Your task to perform on an android device: set the timer Image 0: 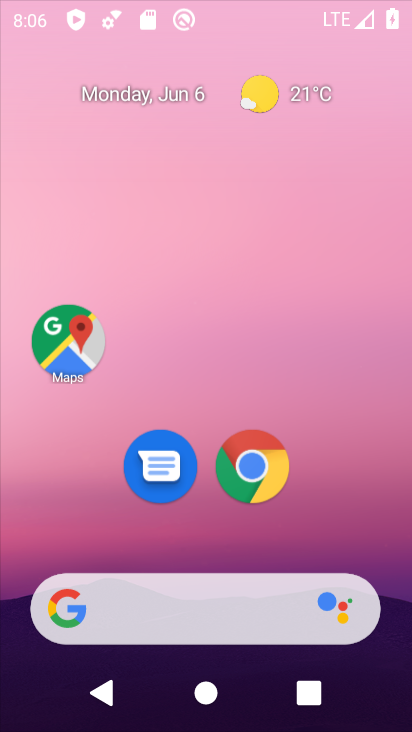
Step 0: click (389, 9)
Your task to perform on an android device: set the timer Image 1: 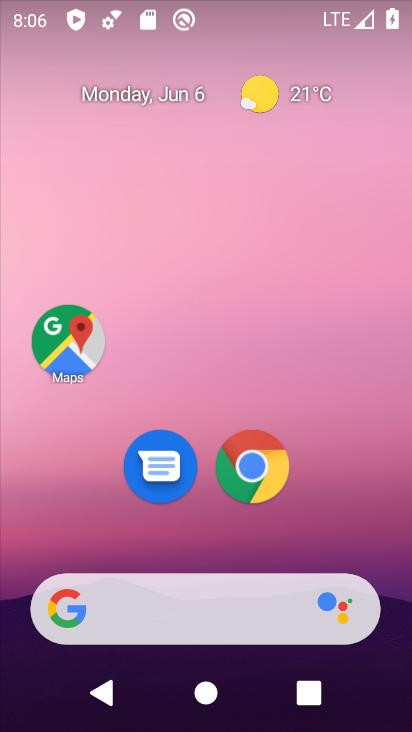
Step 1: drag from (174, 559) to (263, 30)
Your task to perform on an android device: set the timer Image 2: 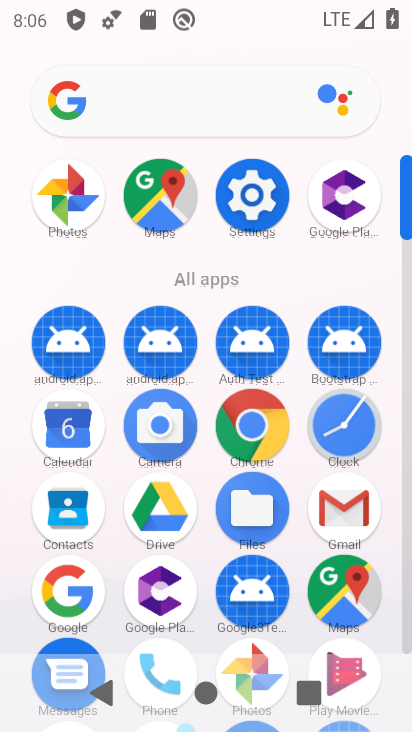
Step 2: click (358, 432)
Your task to perform on an android device: set the timer Image 3: 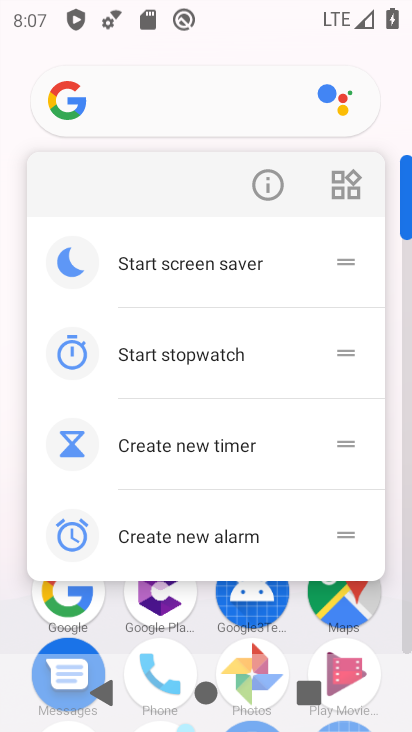
Step 3: click (281, 183)
Your task to perform on an android device: set the timer Image 4: 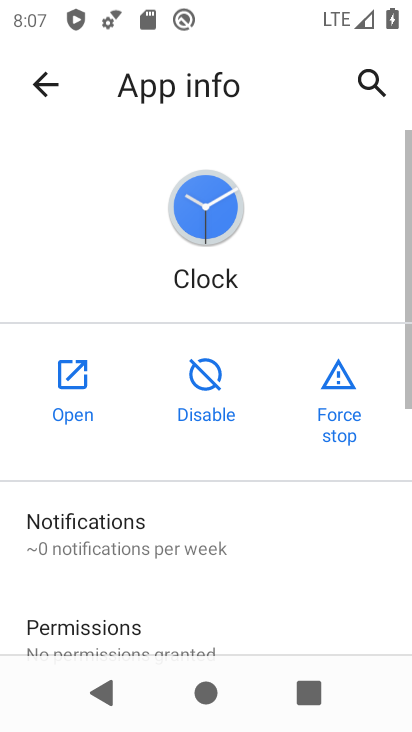
Step 4: click (51, 393)
Your task to perform on an android device: set the timer Image 5: 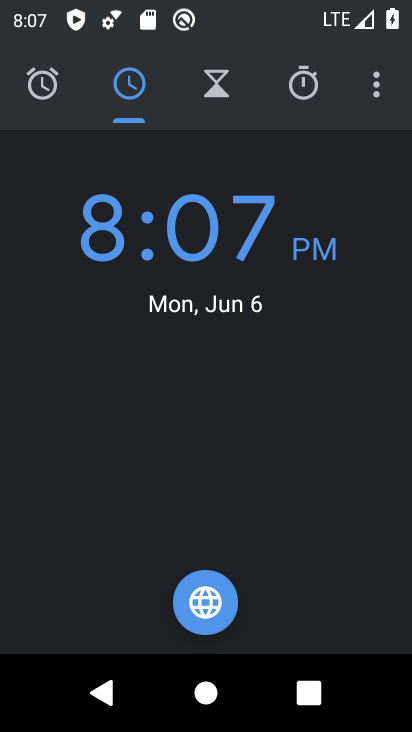
Step 5: click (221, 103)
Your task to perform on an android device: set the timer Image 6: 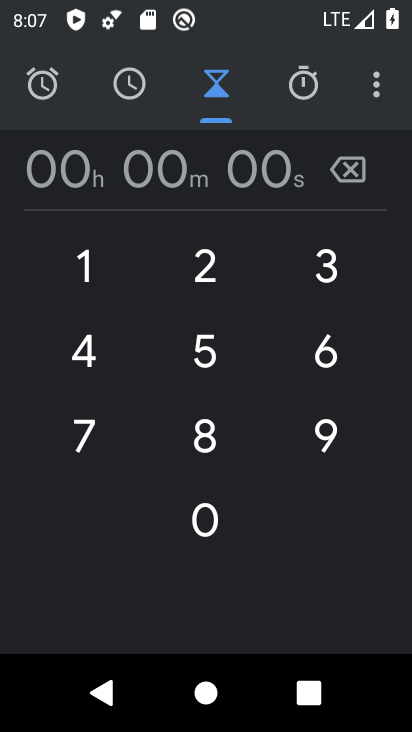
Step 6: click (224, 358)
Your task to perform on an android device: set the timer Image 7: 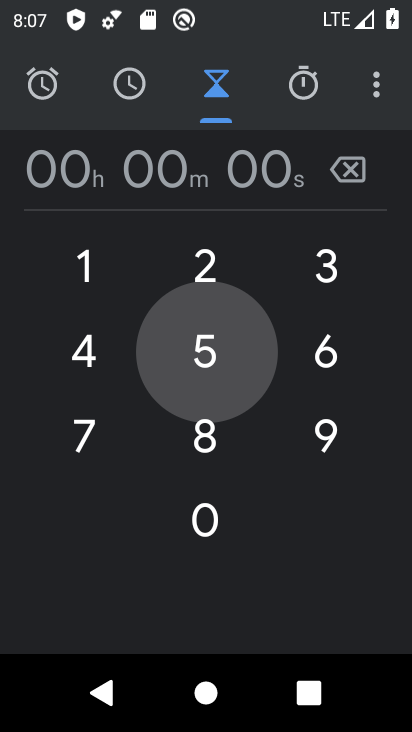
Step 7: click (320, 352)
Your task to perform on an android device: set the timer Image 8: 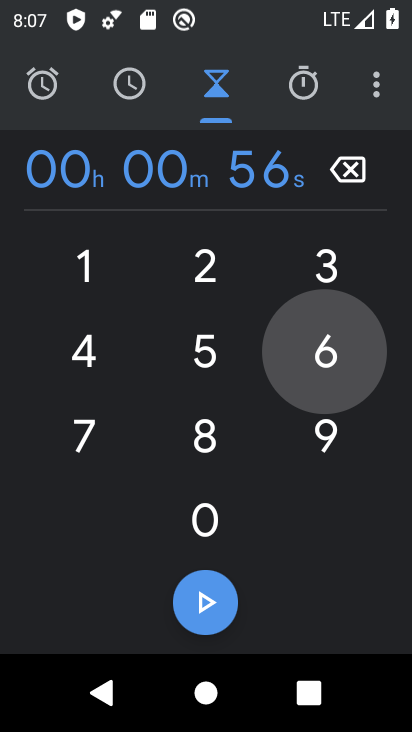
Step 8: click (178, 435)
Your task to perform on an android device: set the timer Image 9: 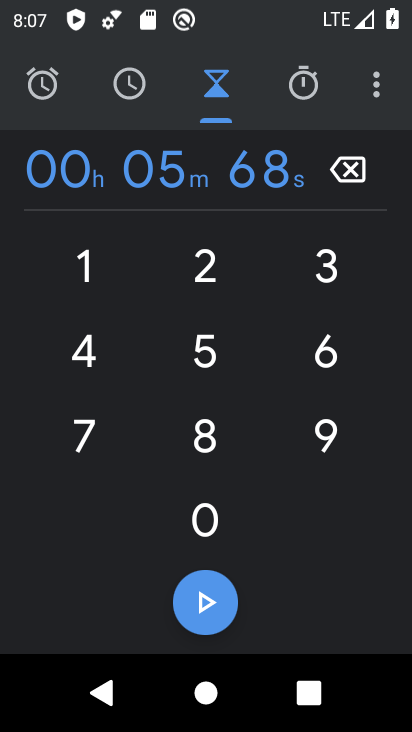
Step 9: click (224, 582)
Your task to perform on an android device: set the timer Image 10: 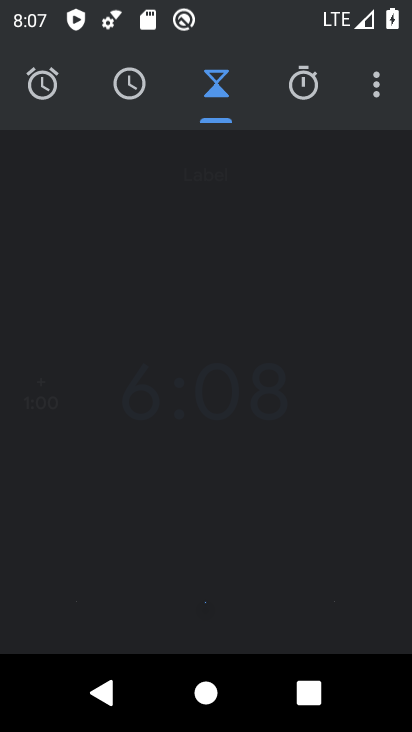
Step 10: task complete